Your task to perform on an android device: Go to Reddit.com Image 0: 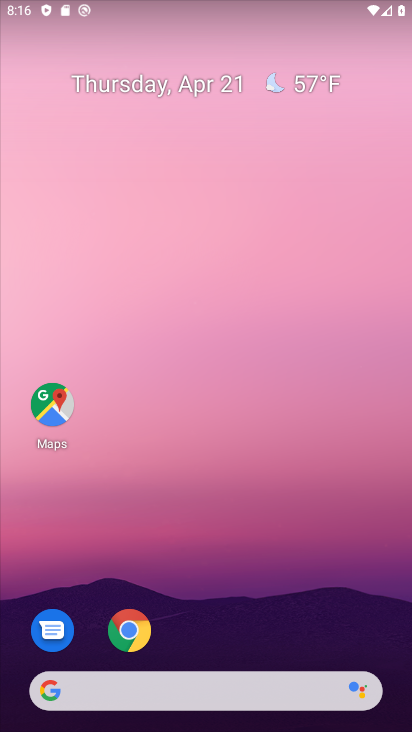
Step 0: drag from (323, 637) to (221, 116)
Your task to perform on an android device: Go to Reddit.com Image 1: 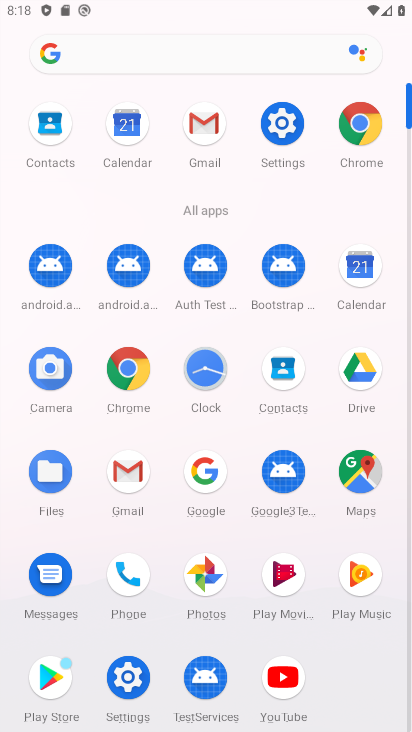
Step 1: click (130, 356)
Your task to perform on an android device: Go to Reddit.com Image 2: 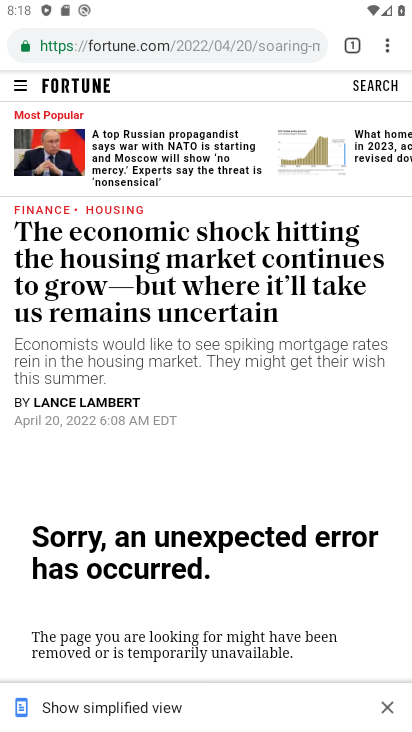
Step 2: press back button
Your task to perform on an android device: Go to Reddit.com Image 3: 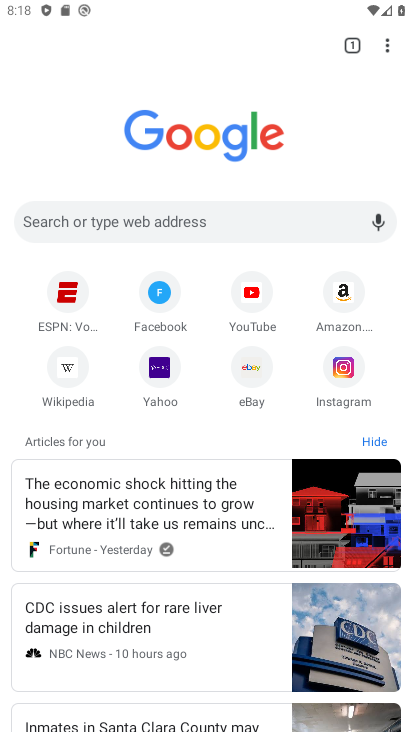
Step 3: click (221, 214)
Your task to perform on an android device: Go to Reddit.com Image 4: 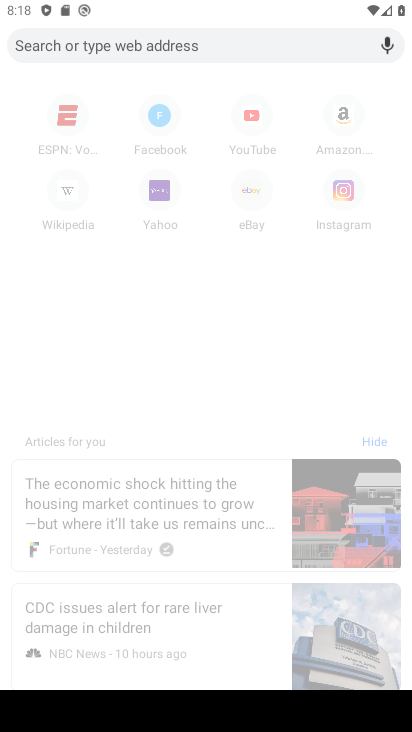
Step 4: type "reddit.com"
Your task to perform on an android device: Go to Reddit.com Image 5: 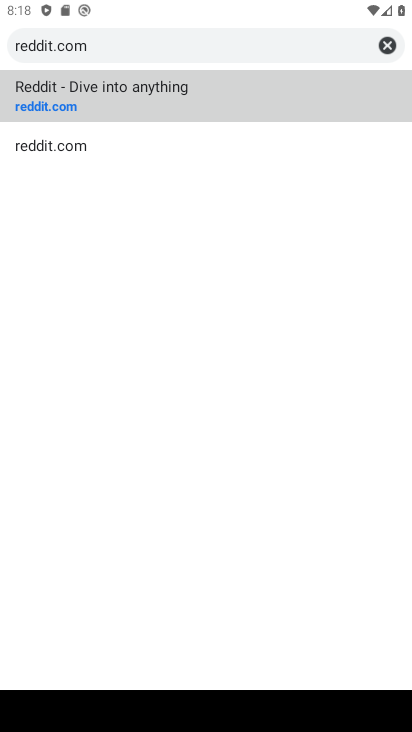
Step 5: click (298, 113)
Your task to perform on an android device: Go to Reddit.com Image 6: 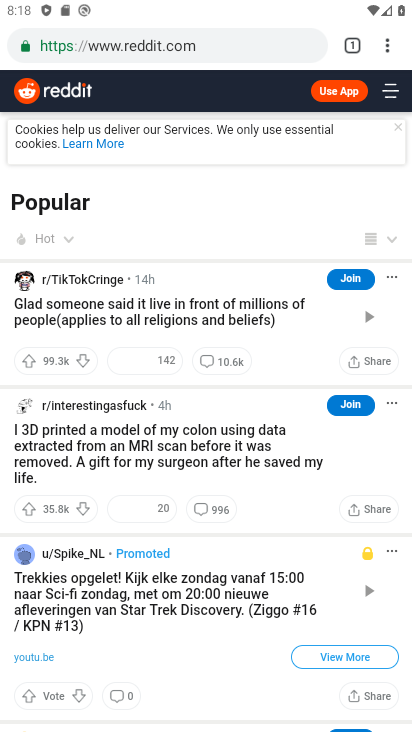
Step 6: task complete